Your task to perform on an android device: allow cookies in the chrome app Image 0: 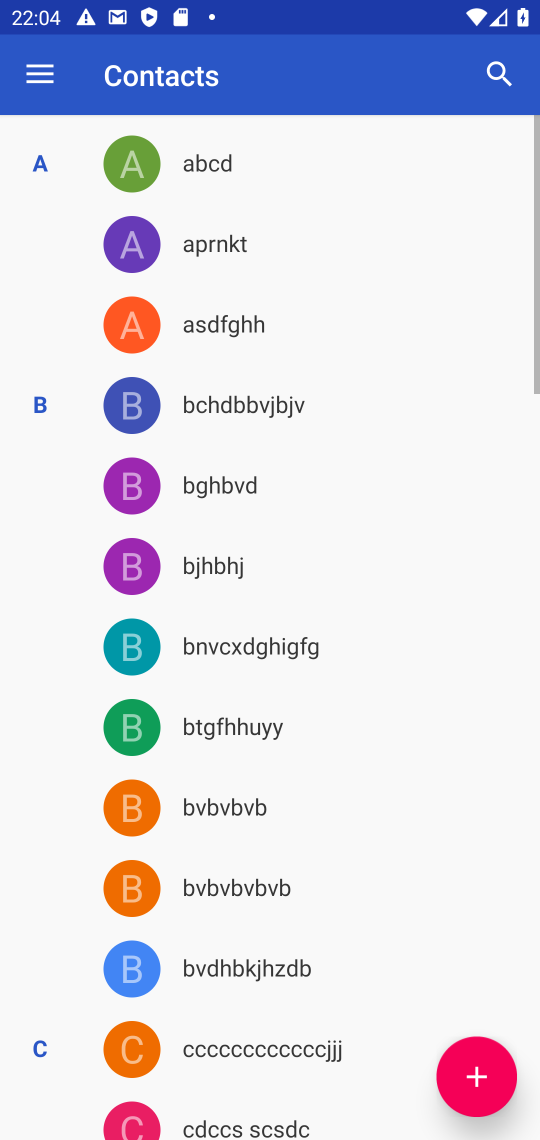
Step 0: press home button
Your task to perform on an android device: allow cookies in the chrome app Image 1: 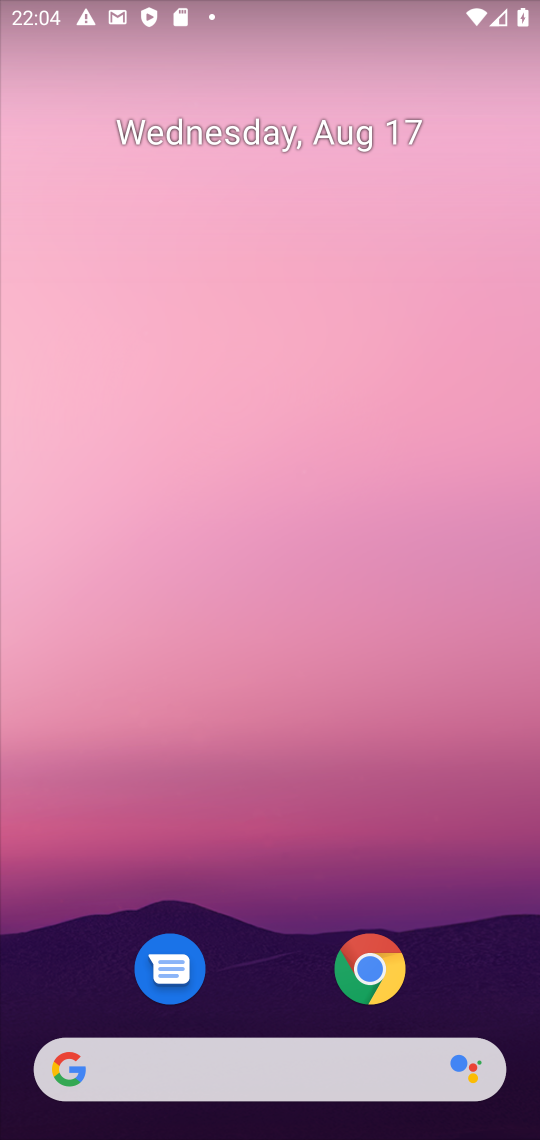
Step 1: click (373, 973)
Your task to perform on an android device: allow cookies in the chrome app Image 2: 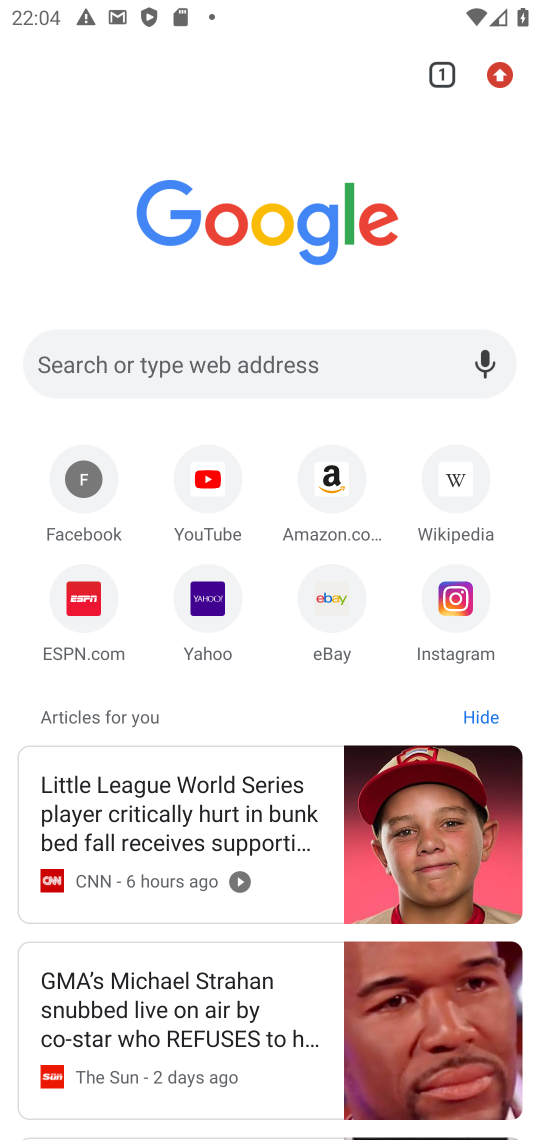
Step 2: click (506, 76)
Your task to perform on an android device: allow cookies in the chrome app Image 3: 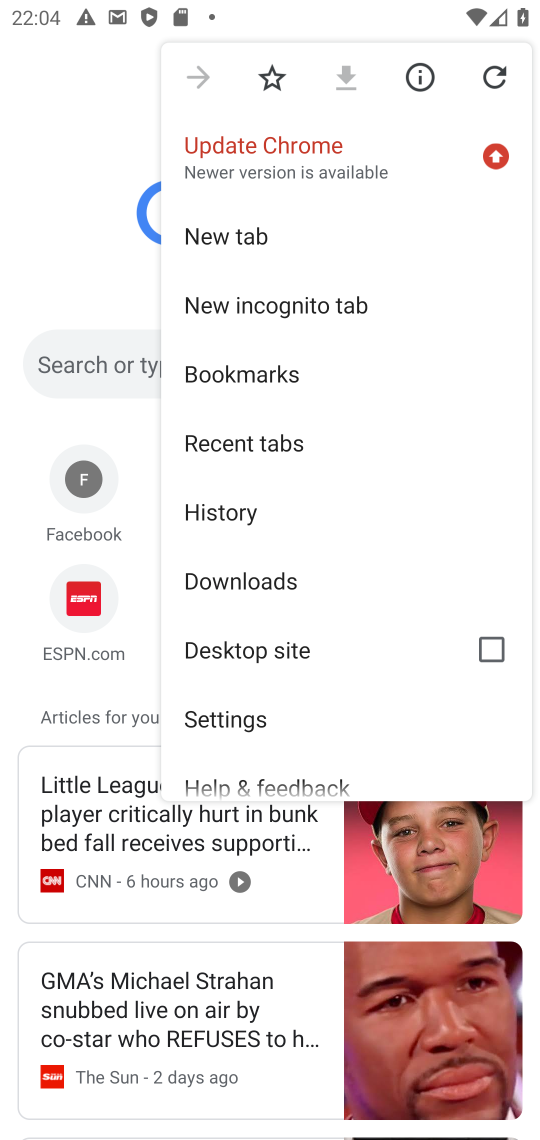
Step 3: click (237, 719)
Your task to perform on an android device: allow cookies in the chrome app Image 4: 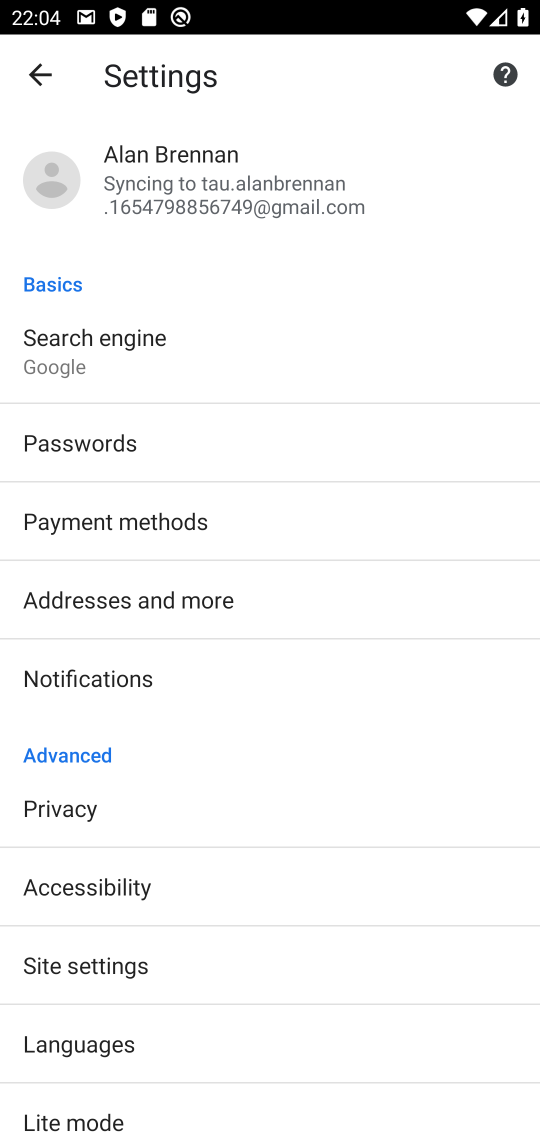
Step 4: click (85, 964)
Your task to perform on an android device: allow cookies in the chrome app Image 5: 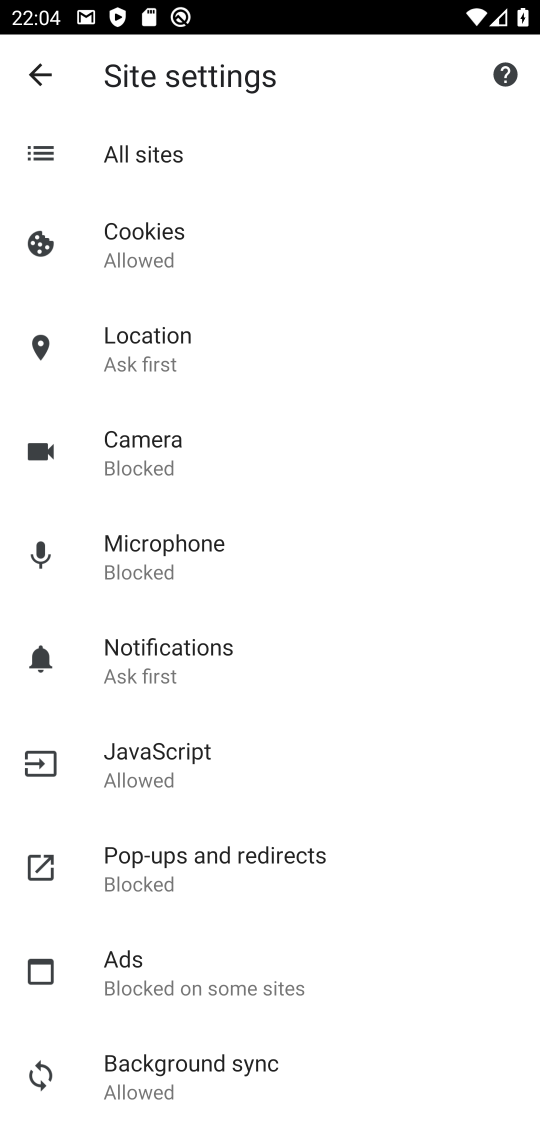
Step 5: click (130, 236)
Your task to perform on an android device: allow cookies in the chrome app Image 6: 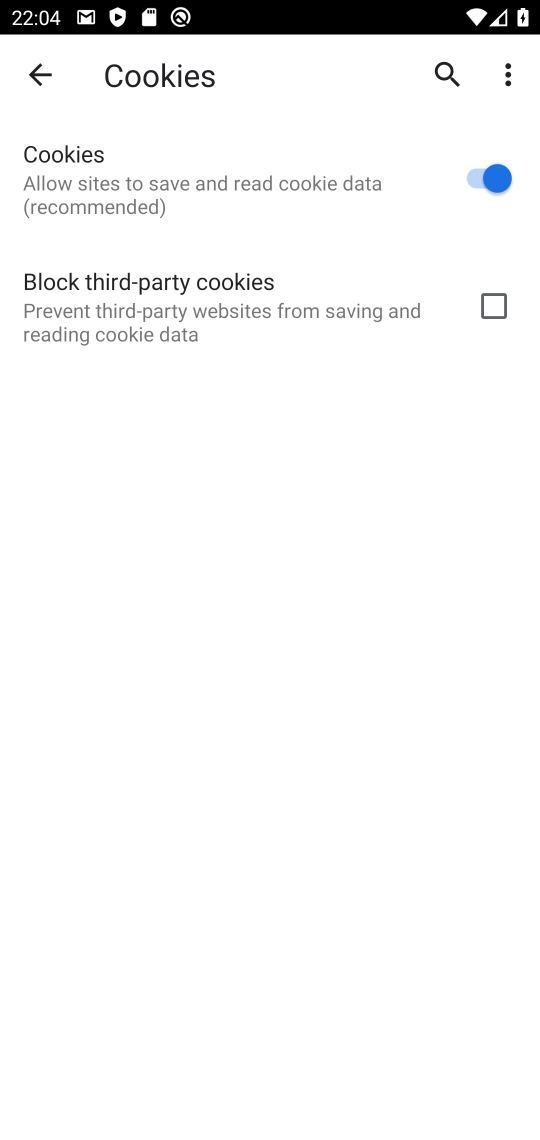
Step 6: task complete